Your task to perform on an android device: change the upload size in google photos Image 0: 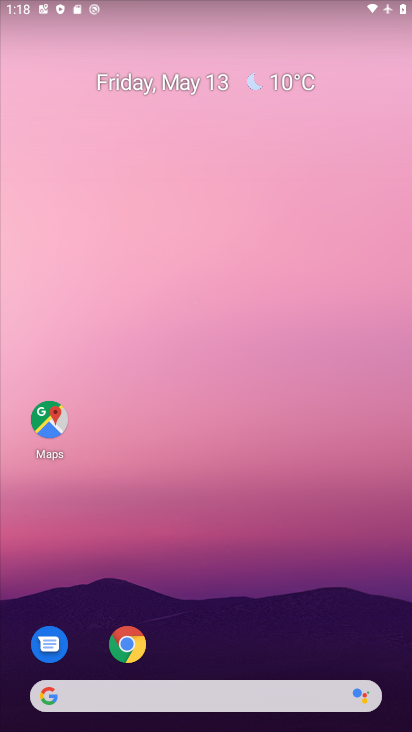
Step 0: drag from (208, 715) to (206, 92)
Your task to perform on an android device: change the upload size in google photos Image 1: 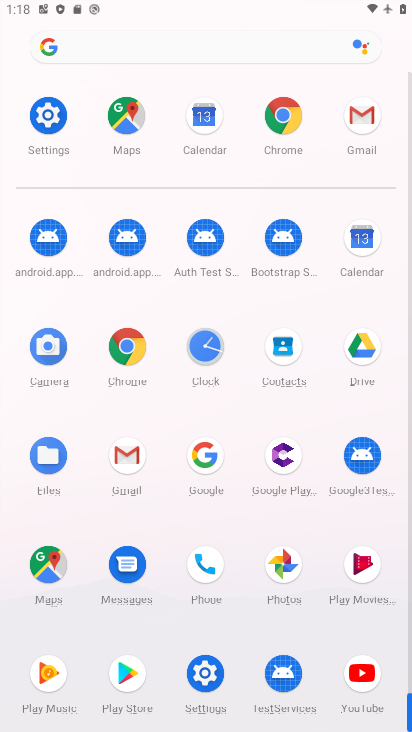
Step 1: click (284, 563)
Your task to perform on an android device: change the upload size in google photos Image 2: 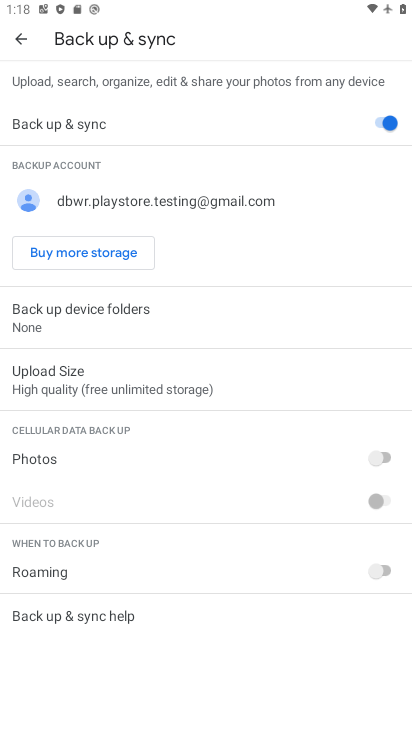
Step 2: click (93, 378)
Your task to perform on an android device: change the upload size in google photos Image 3: 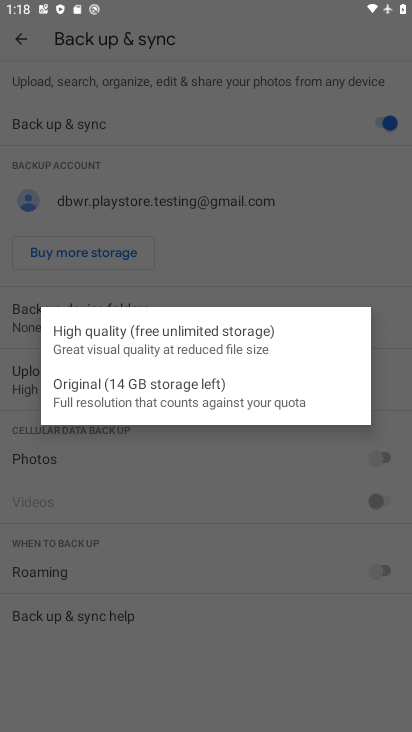
Step 3: click (126, 393)
Your task to perform on an android device: change the upload size in google photos Image 4: 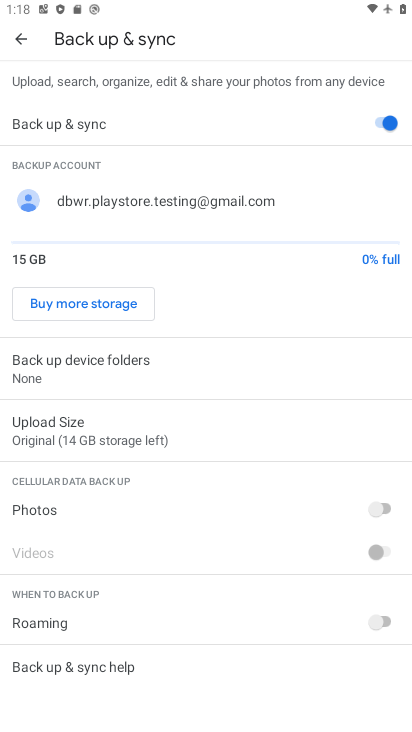
Step 4: task complete